Your task to perform on an android device: Search for Mexican restaurants on Maps Image 0: 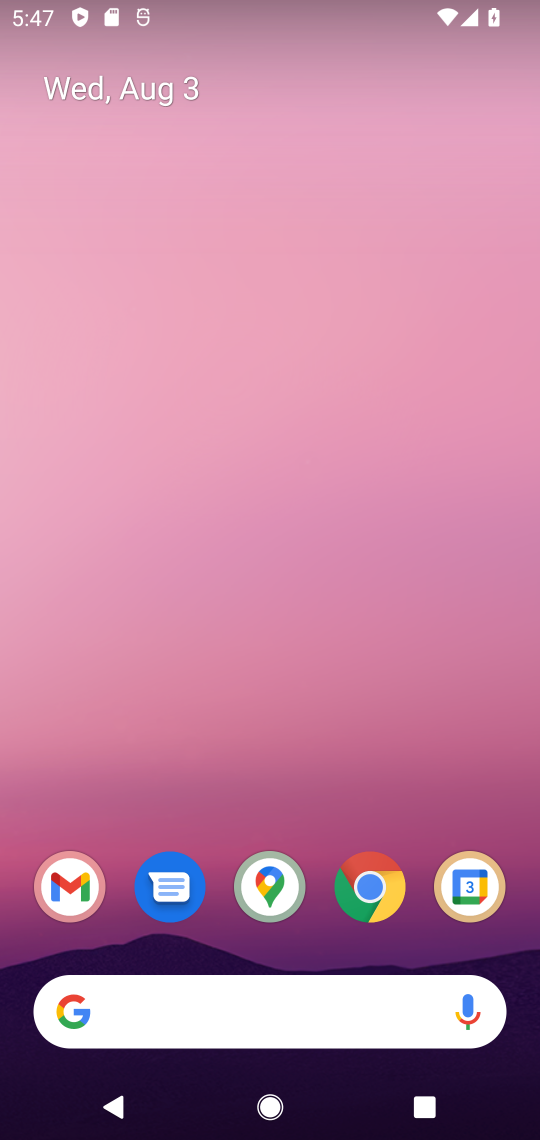
Step 0: drag from (242, 950) to (411, 24)
Your task to perform on an android device: Search for Mexican restaurants on Maps Image 1: 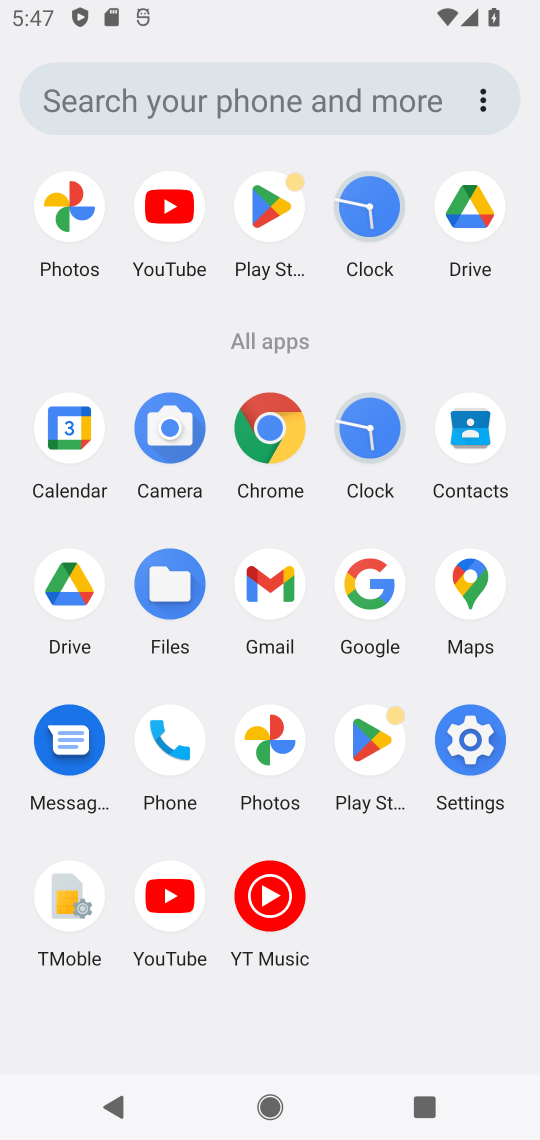
Step 1: click (359, 740)
Your task to perform on an android device: Search for Mexican restaurants on Maps Image 2: 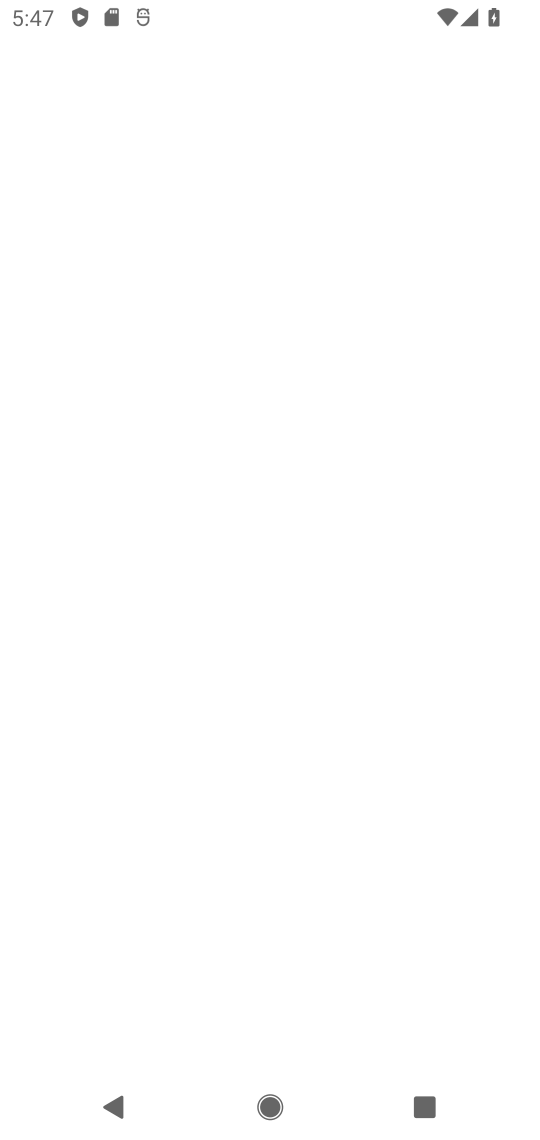
Step 2: press back button
Your task to perform on an android device: Search for Mexican restaurants on Maps Image 3: 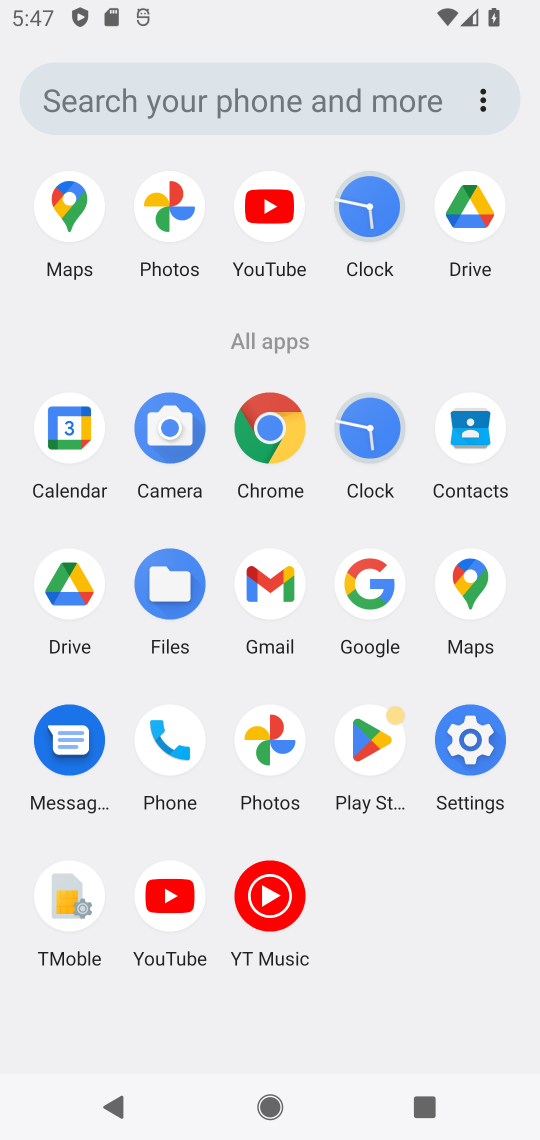
Step 3: click (468, 620)
Your task to perform on an android device: Search for Mexican restaurants on Maps Image 4: 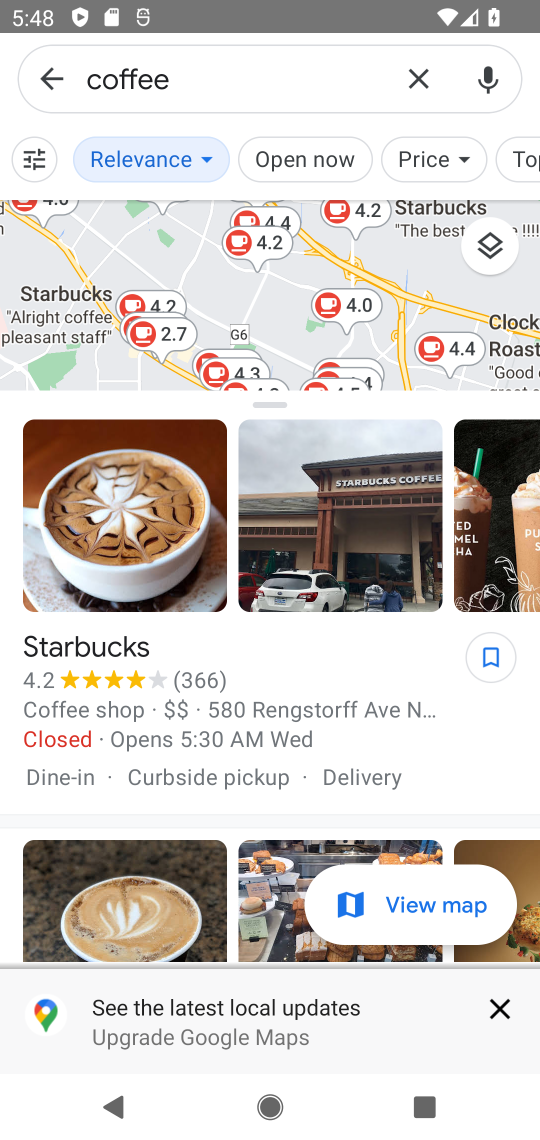
Step 4: click (423, 70)
Your task to perform on an android device: Search for Mexican restaurants on Maps Image 5: 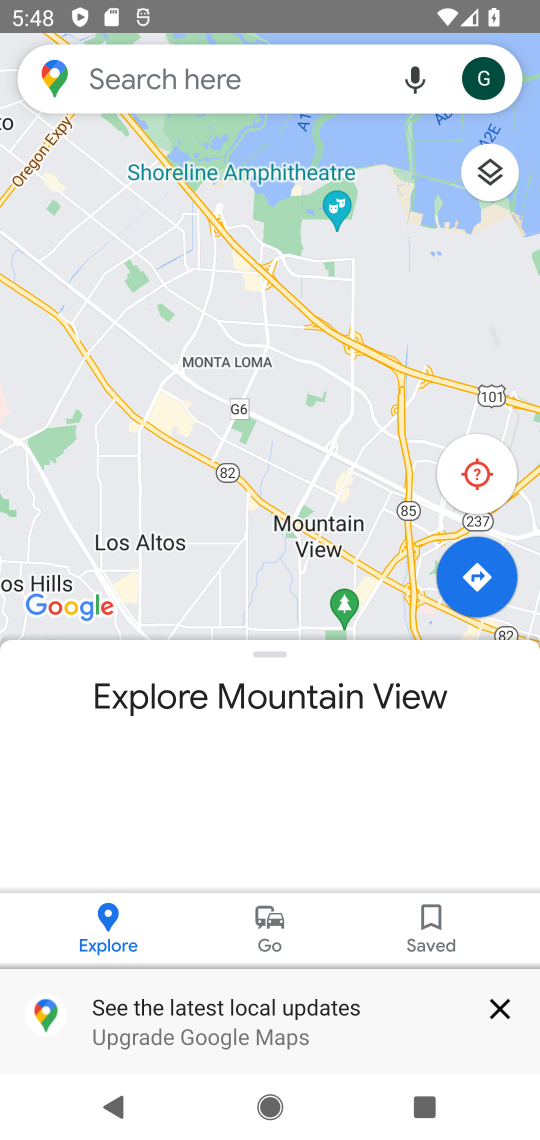
Step 5: click (156, 96)
Your task to perform on an android device: Search for Mexican restaurants on Maps Image 6: 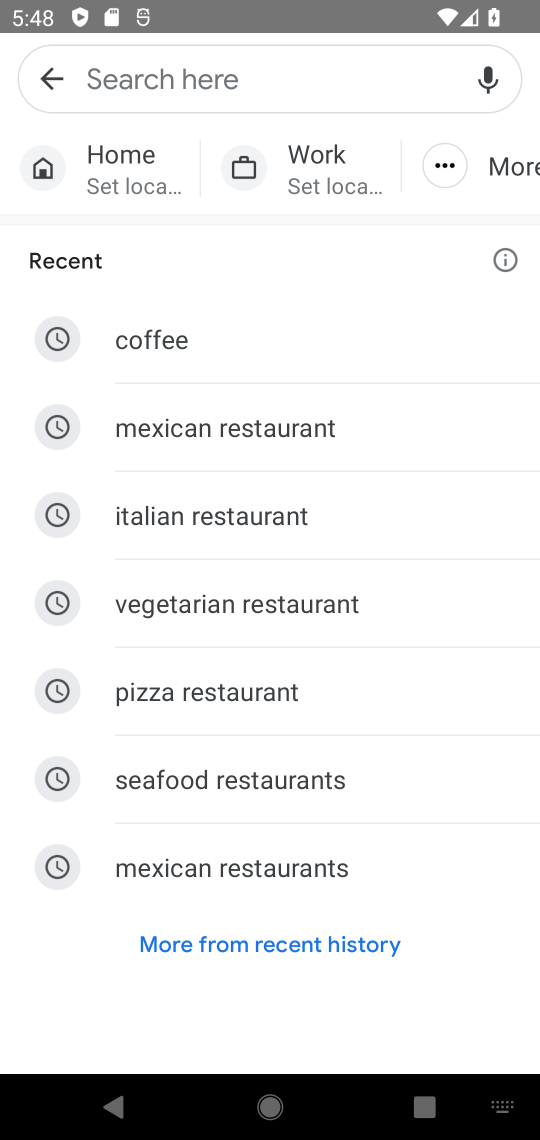
Step 6: click (180, 897)
Your task to perform on an android device: Search for Mexican restaurants on Maps Image 7: 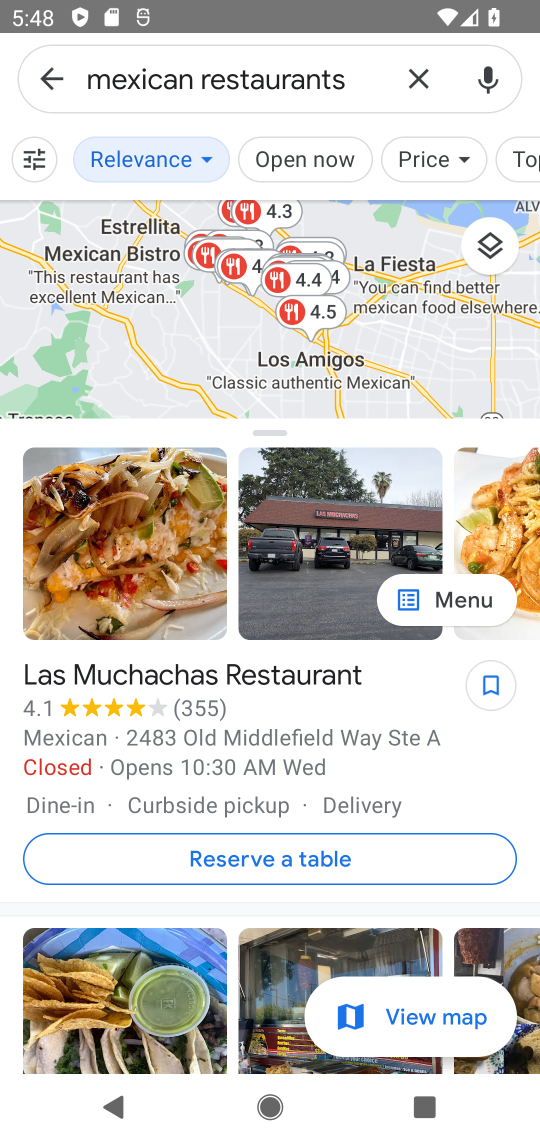
Step 7: task complete